Your task to perform on an android device: Is it going to rain this weekend? Image 0: 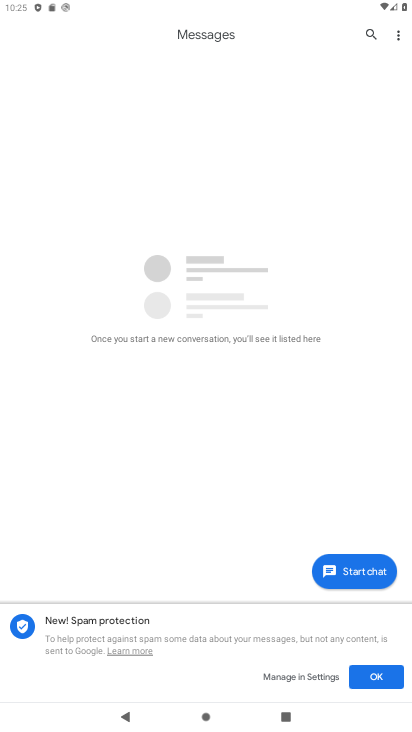
Step 0: press home button
Your task to perform on an android device: Is it going to rain this weekend? Image 1: 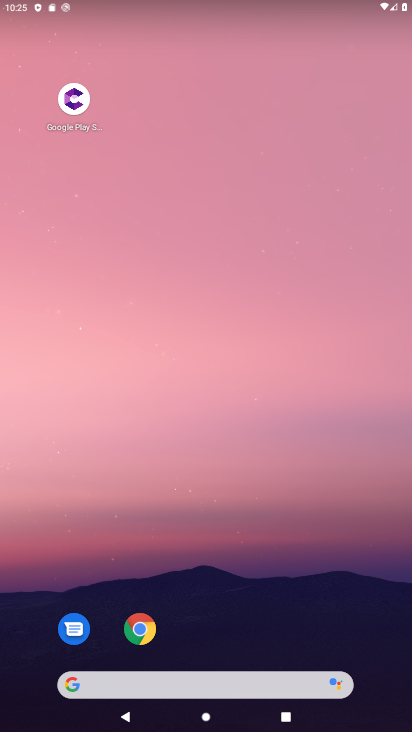
Step 1: task complete